Your task to perform on an android device: Is it going to rain today? Image 0: 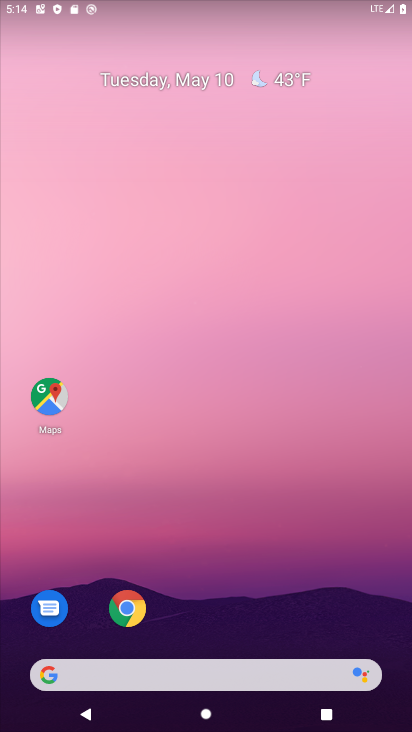
Step 0: drag from (220, 622) to (324, 34)
Your task to perform on an android device: Is it going to rain today? Image 1: 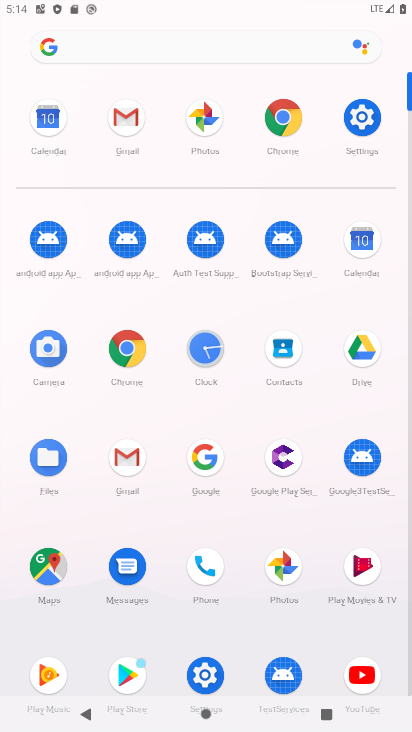
Step 1: press back button
Your task to perform on an android device: Is it going to rain today? Image 2: 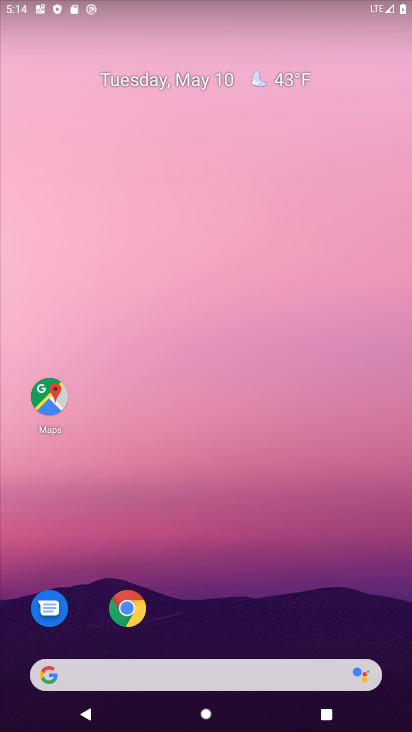
Step 2: click (287, 85)
Your task to perform on an android device: Is it going to rain today? Image 3: 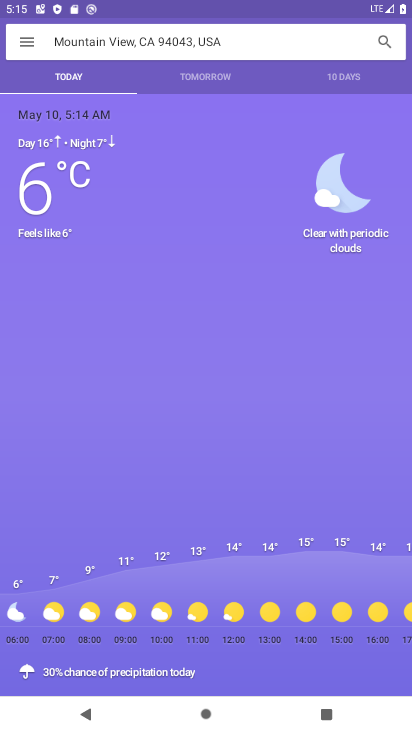
Step 3: task complete